Your task to perform on an android device: change text size in settings app Image 0: 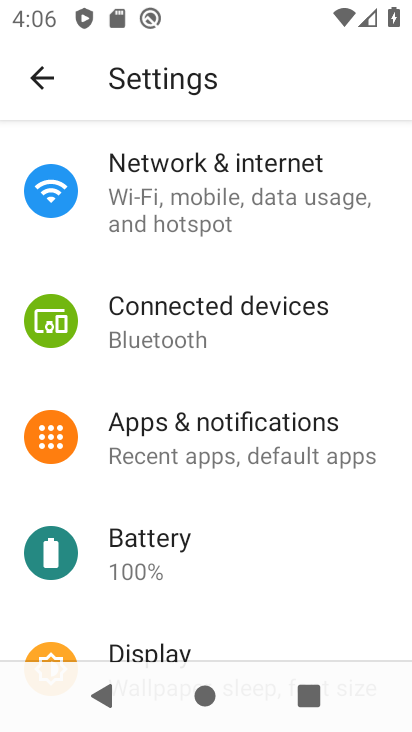
Step 0: drag from (191, 546) to (252, 265)
Your task to perform on an android device: change text size in settings app Image 1: 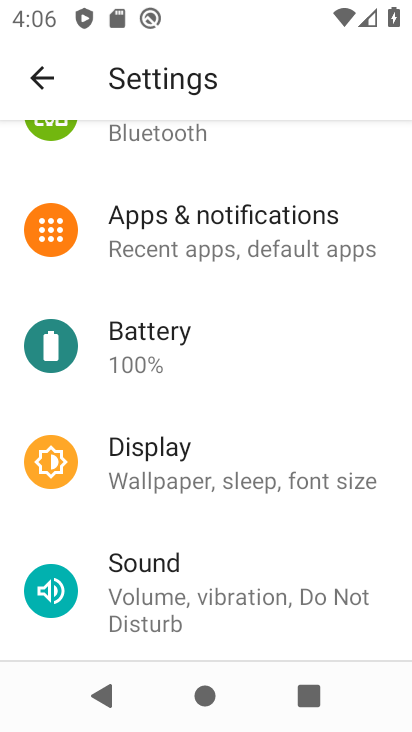
Step 1: click (146, 457)
Your task to perform on an android device: change text size in settings app Image 2: 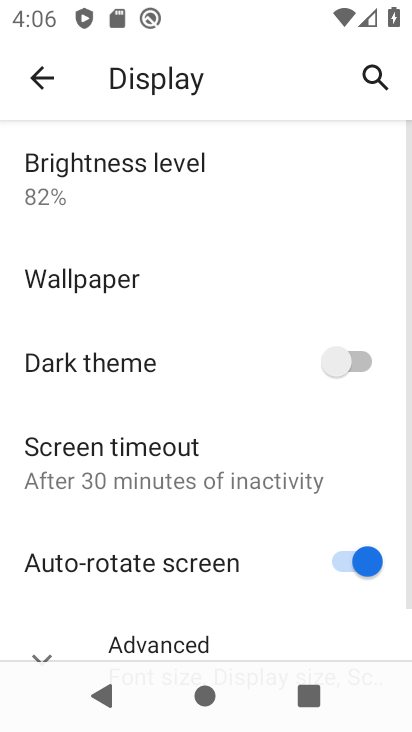
Step 2: drag from (155, 613) to (218, 272)
Your task to perform on an android device: change text size in settings app Image 3: 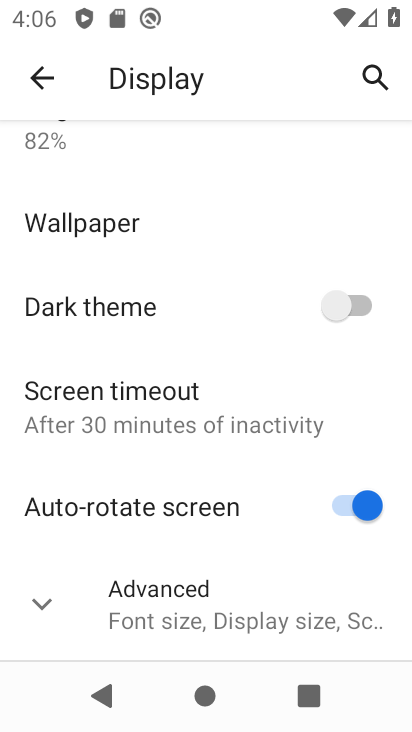
Step 3: click (100, 609)
Your task to perform on an android device: change text size in settings app Image 4: 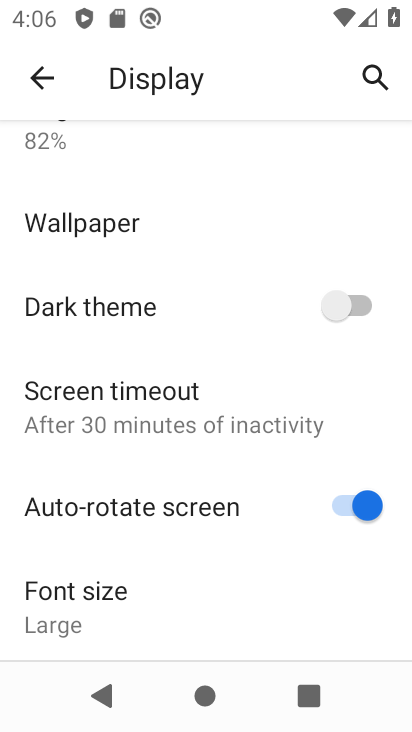
Step 4: drag from (134, 548) to (156, 301)
Your task to perform on an android device: change text size in settings app Image 5: 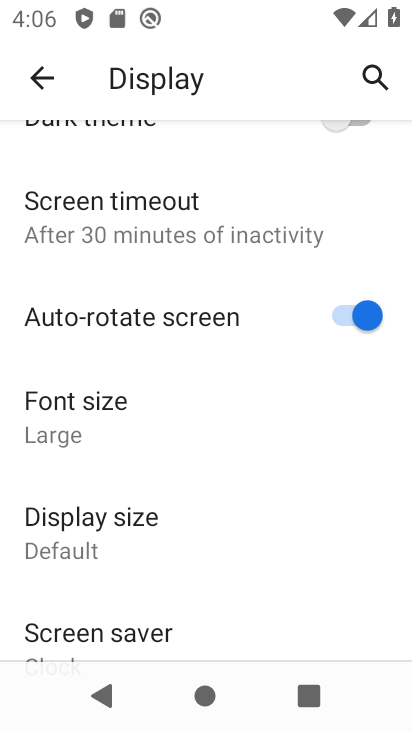
Step 5: click (83, 429)
Your task to perform on an android device: change text size in settings app Image 6: 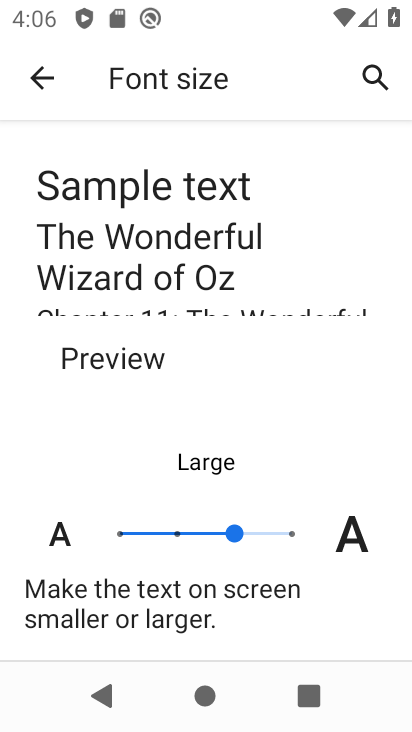
Step 6: click (175, 531)
Your task to perform on an android device: change text size in settings app Image 7: 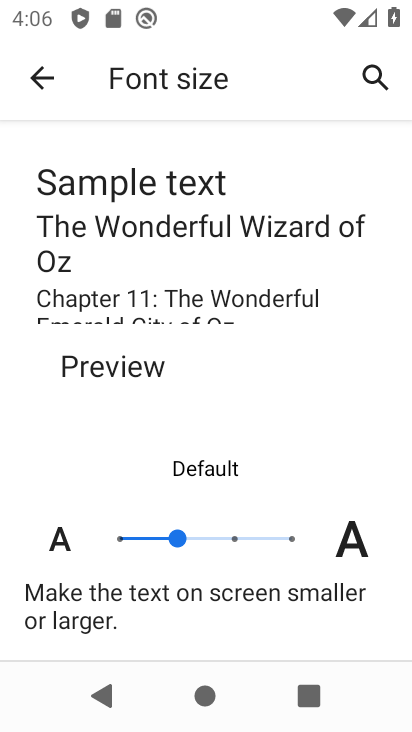
Step 7: task complete